Your task to perform on an android device: install app "Messenger Lite" Image 0: 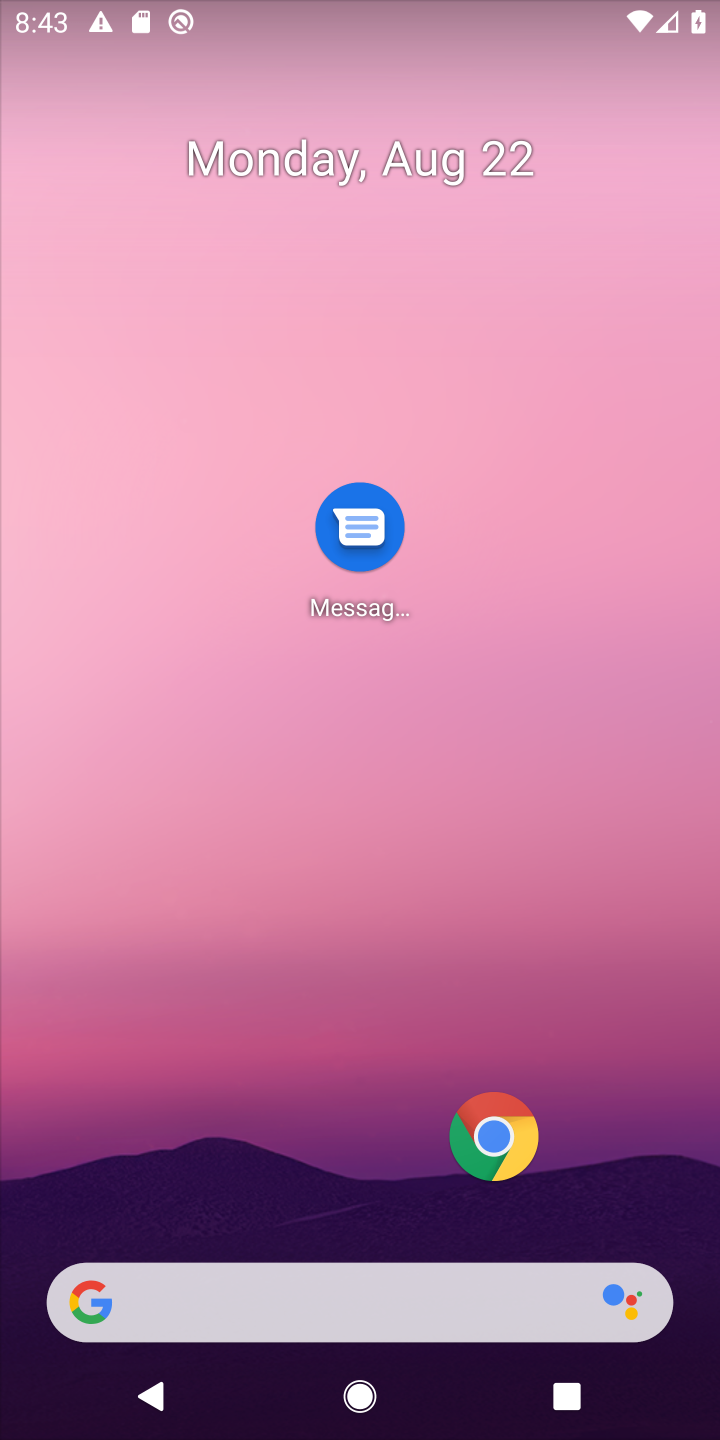
Step 0: drag from (357, 1217) to (66, 1320)
Your task to perform on an android device: install app "Messenger Lite" Image 1: 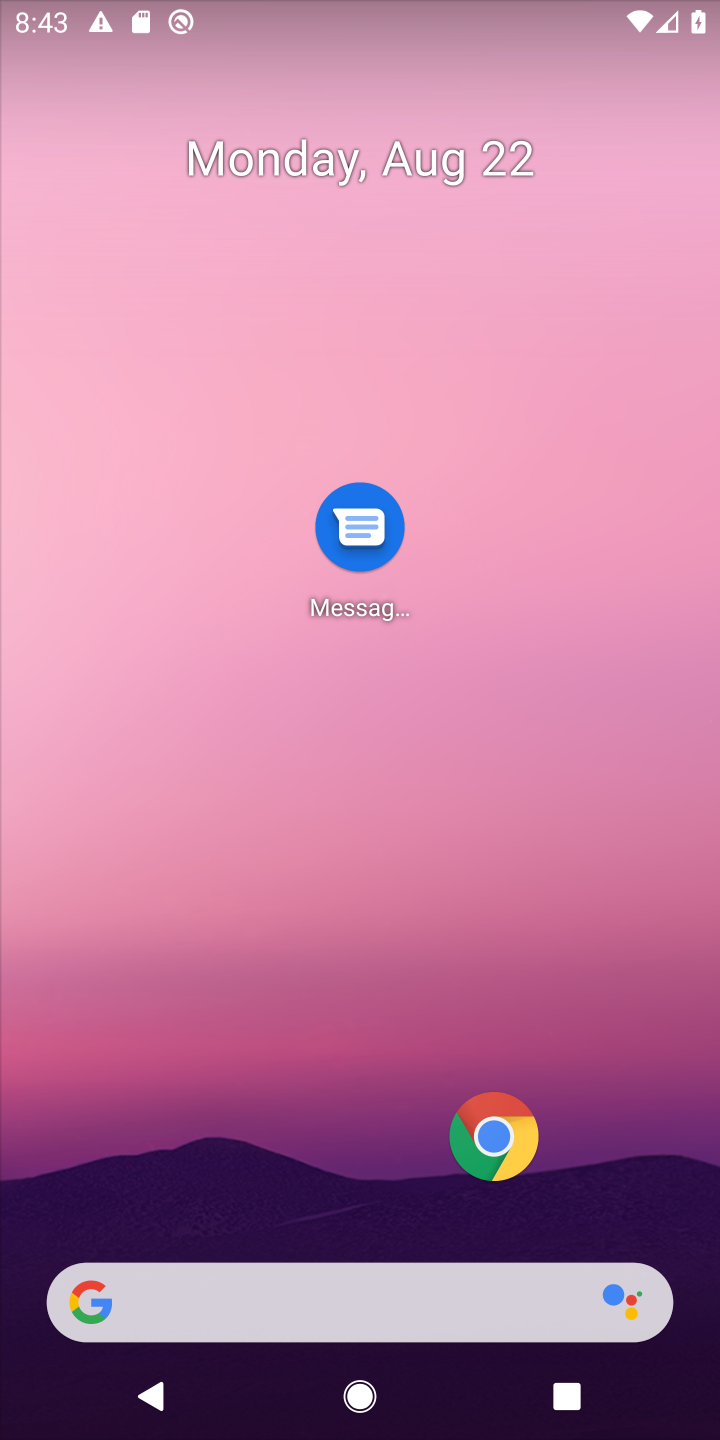
Step 1: drag from (260, 1018) to (250, 238)
Your task to perform on an android device: install app "Messenger Lite" Image 2: 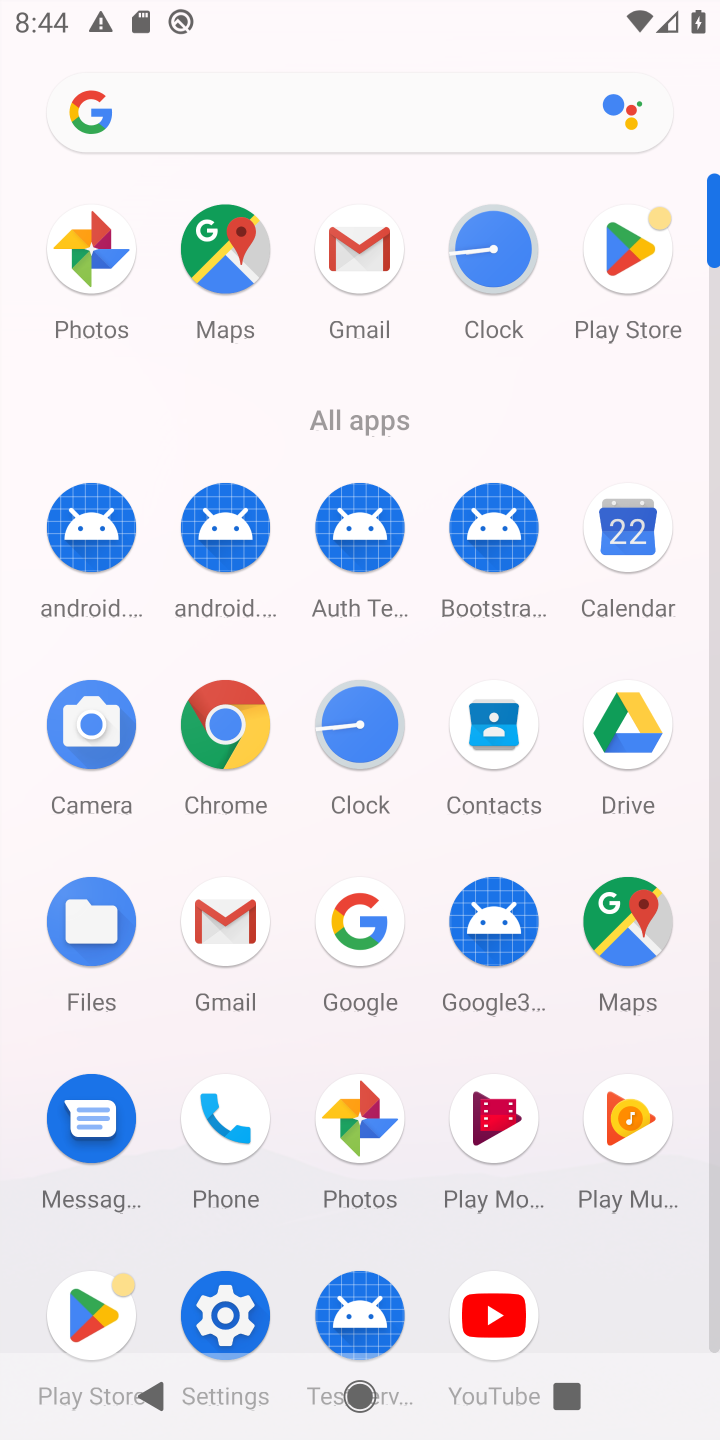
Step 2: click (638, 240)
Your task to perform on an android device: install app "Messenger Lite" Image 3: 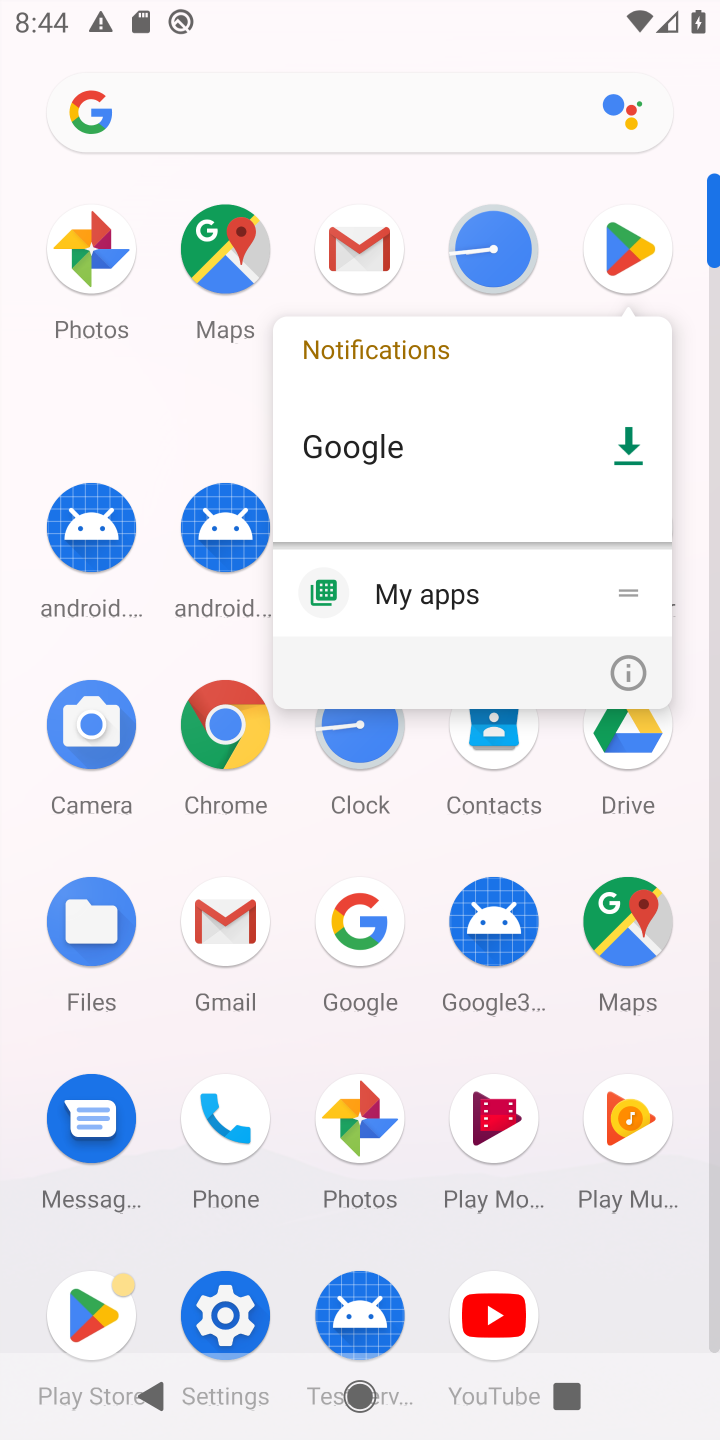
Step 3: click (631, 244)
Your task to perform on an android device: install app "Messenger Lite" Image 4: 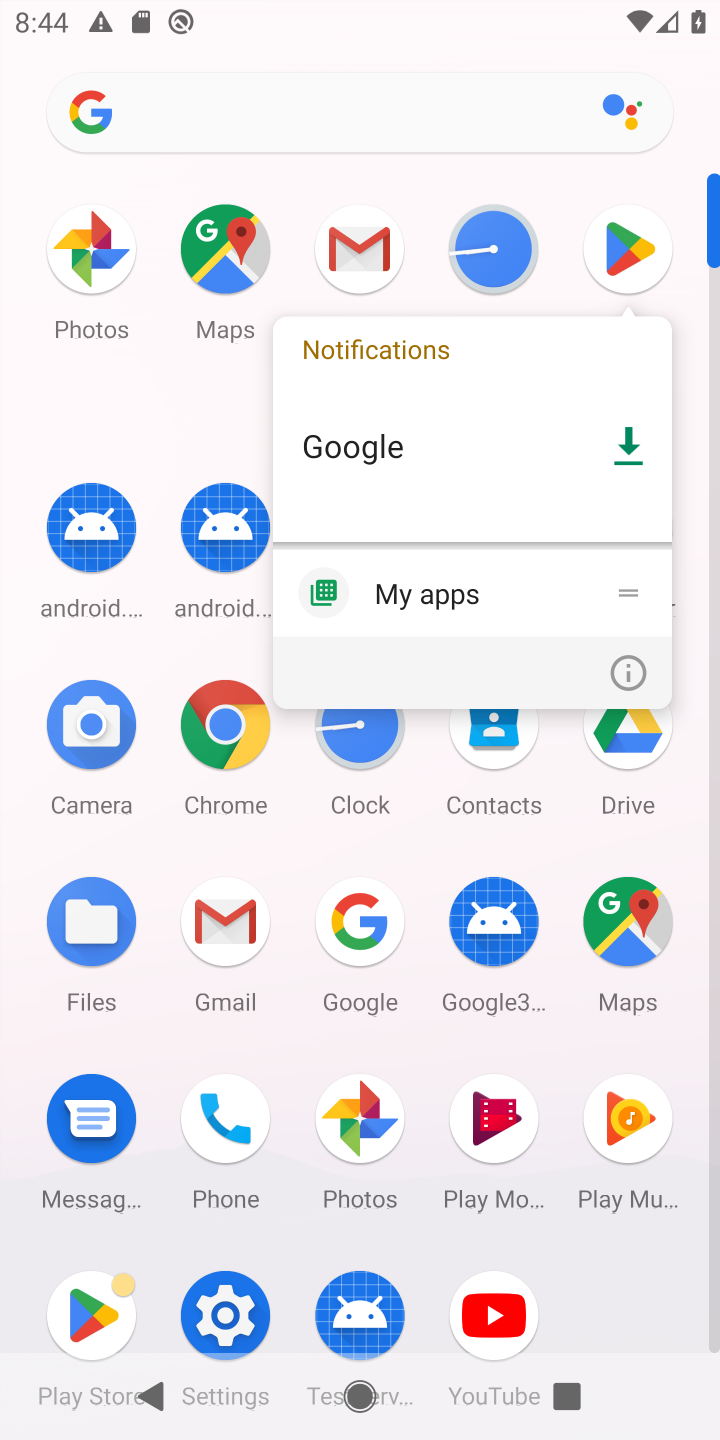
Step 4: click (627, 244)
Your task to perform on an android device: install app "Messenger Lite" Image 5: 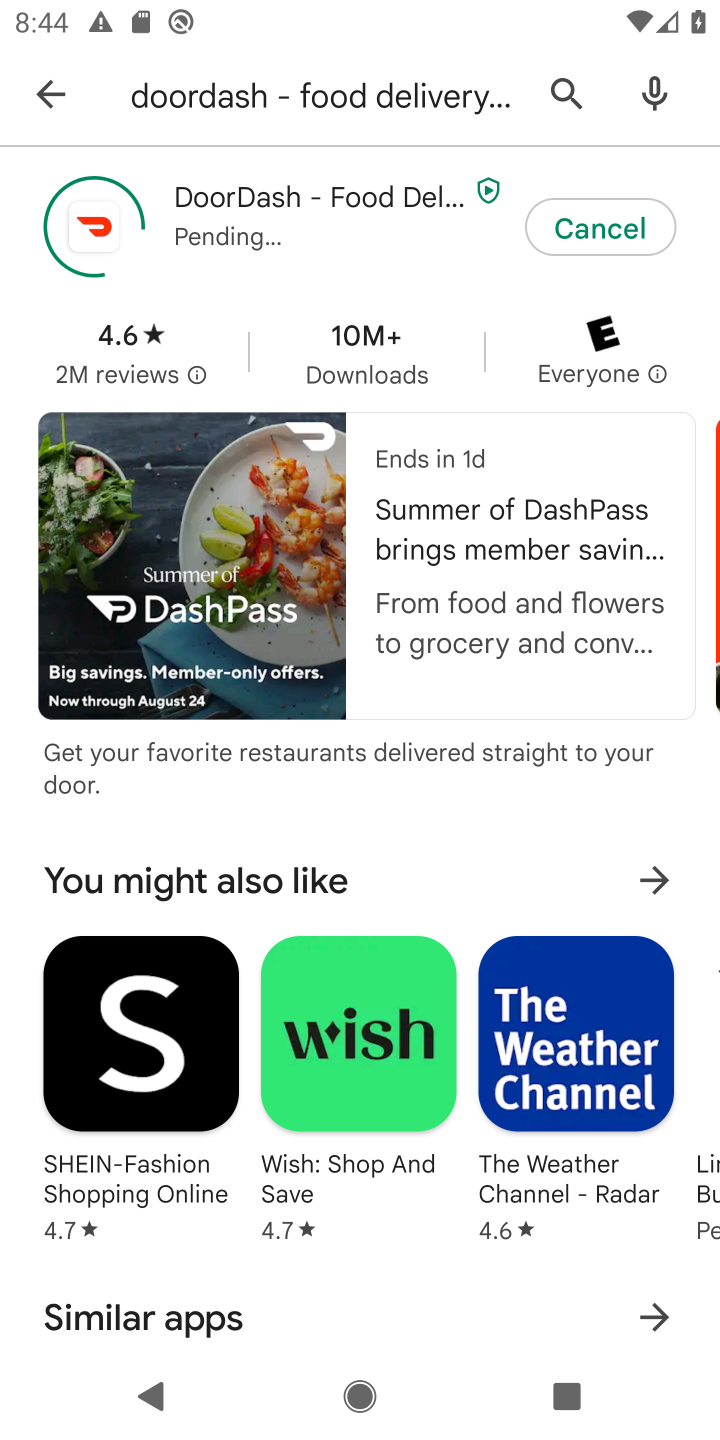
Step 5: click (86, 1293)
Your task to perform on an android device: install app "Messenger Lite" Image 6: 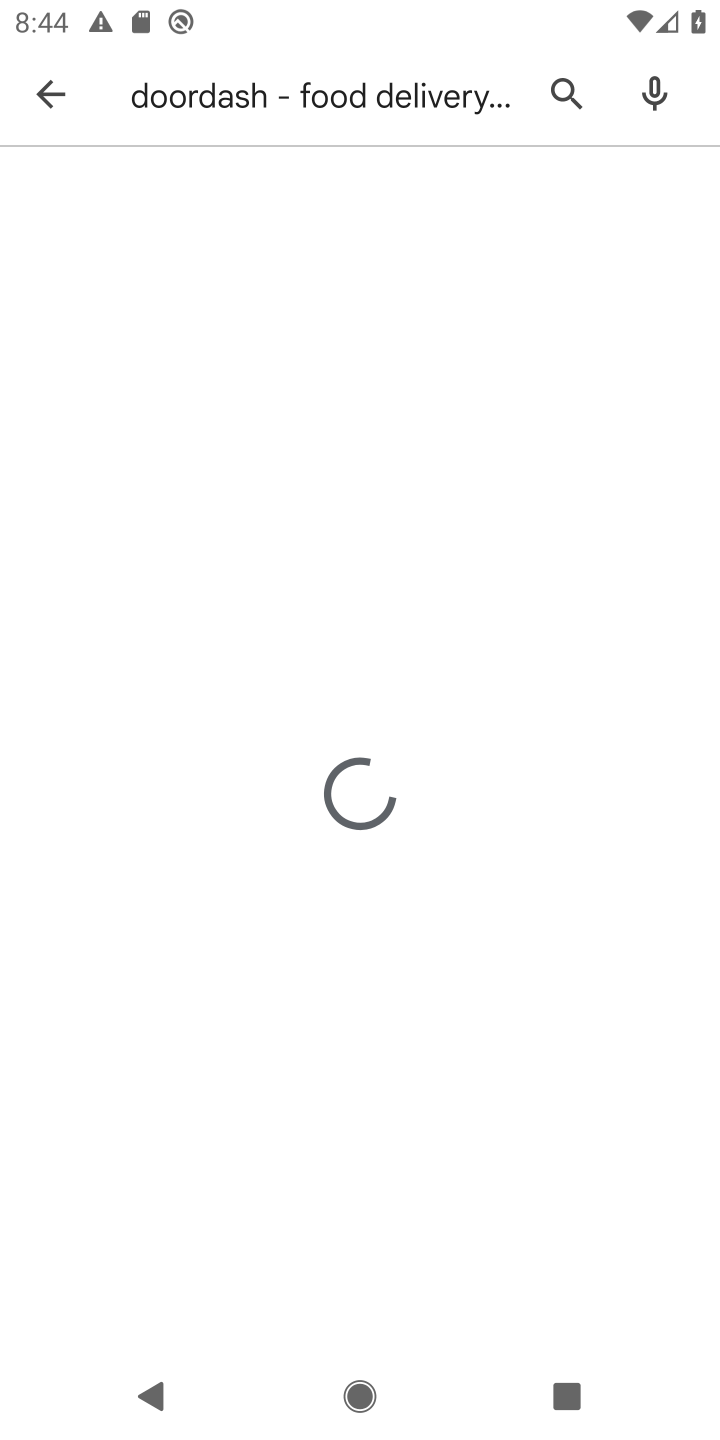
Step 6: click (61, 92)
Your task to perform on an android device: install app "Messenger Lite" Image 7: 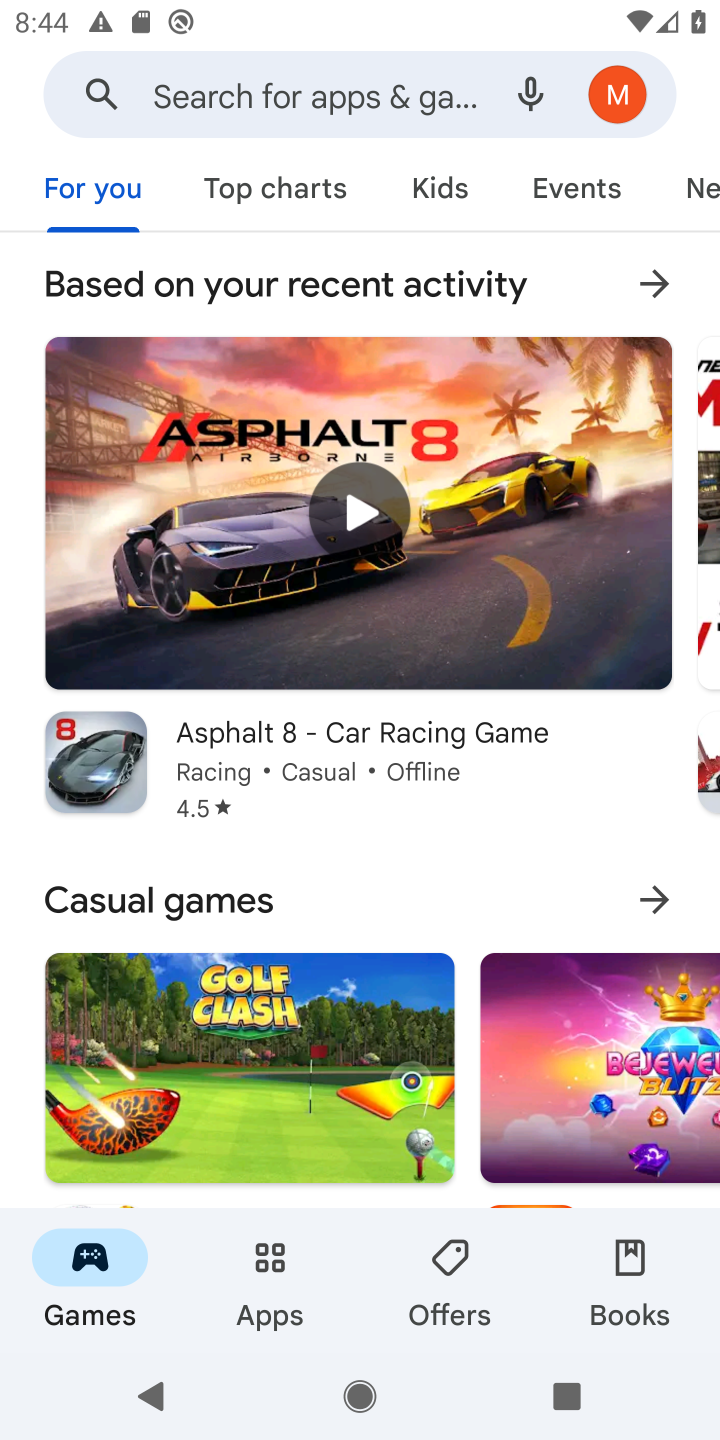
Step 7: click (61, 92)
Your task to perform on an android device: install app "Messenger Lite" Image 8: 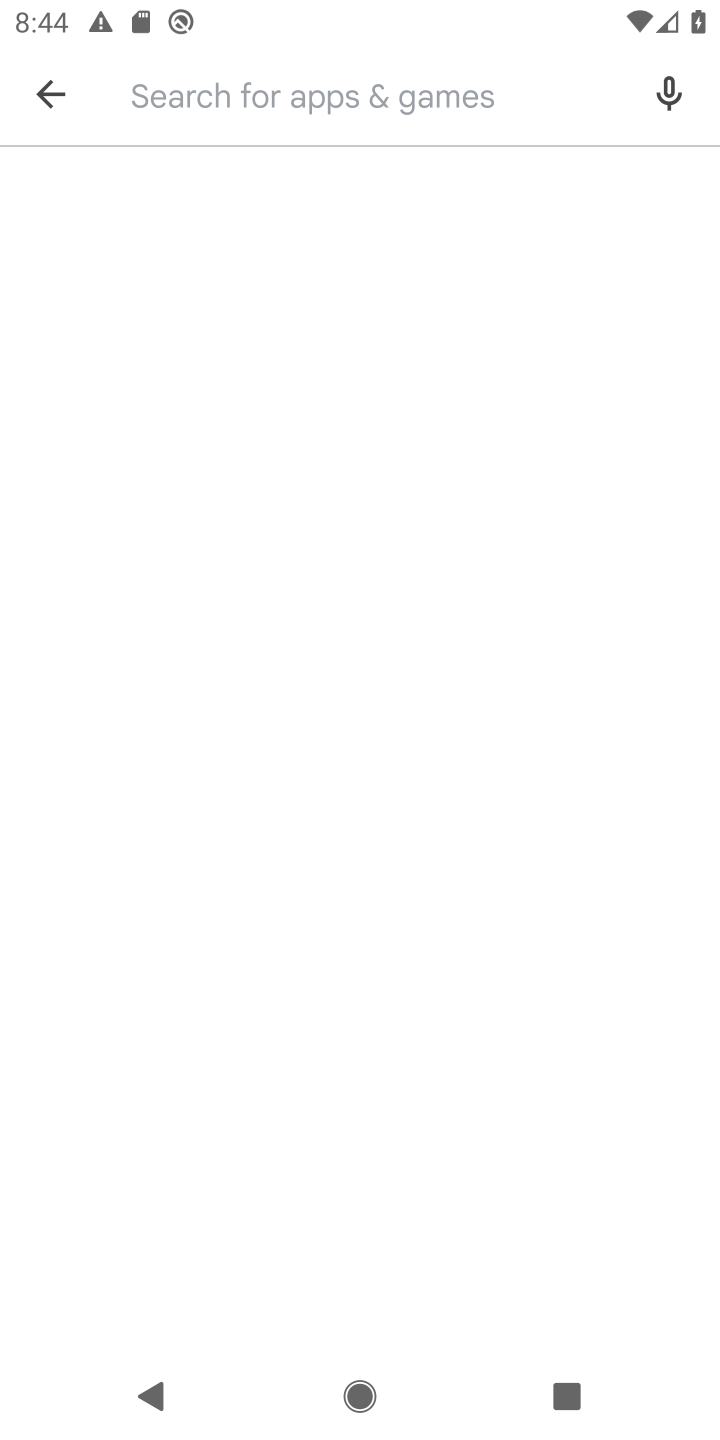
Step 8: click (243, 92)
Your task to perform on an android device: install app "Messenger Lite" Image 9: 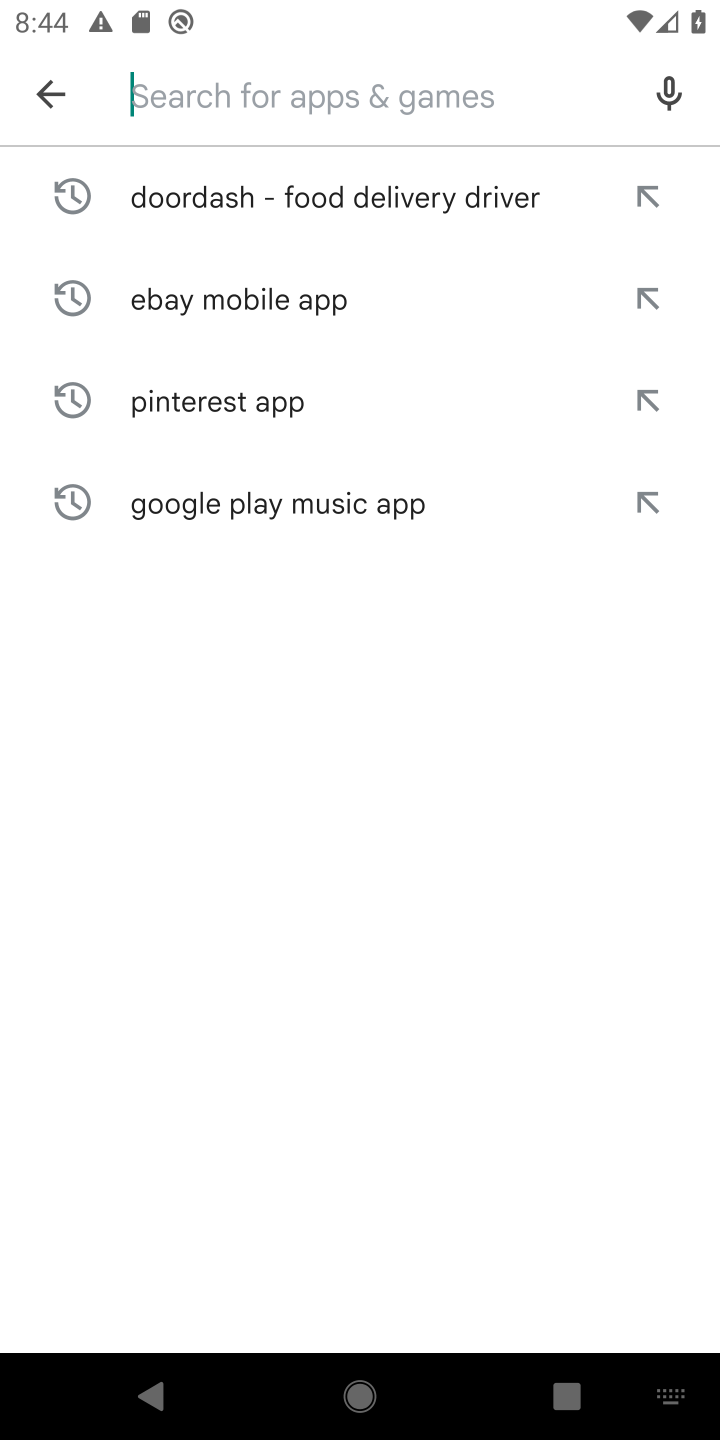
Step 9: click (158, 92)
Your task to perform on an android device: install app "Messenger Lite" Image 10: 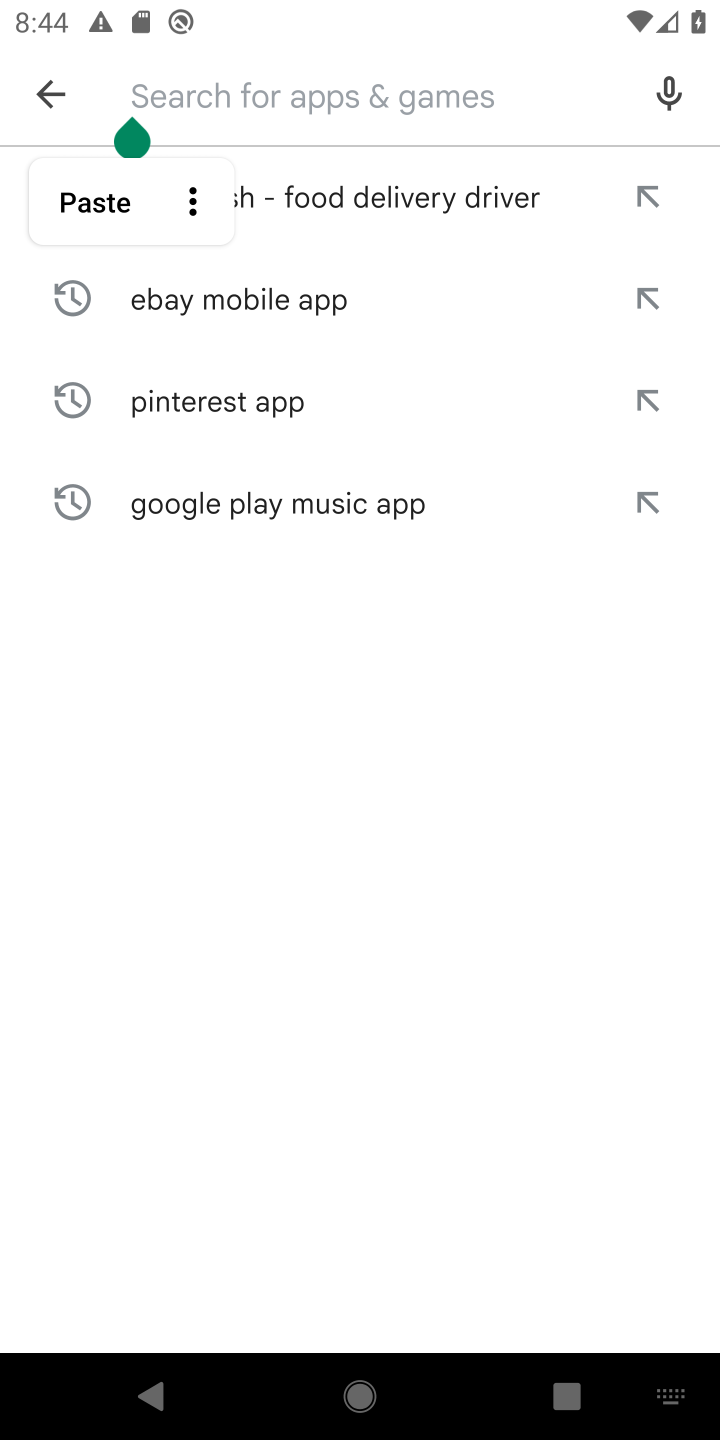
Step 10: type "Messenger Lite "
Your task to perform on an android device: install app "Messenger Lite" Image 11: 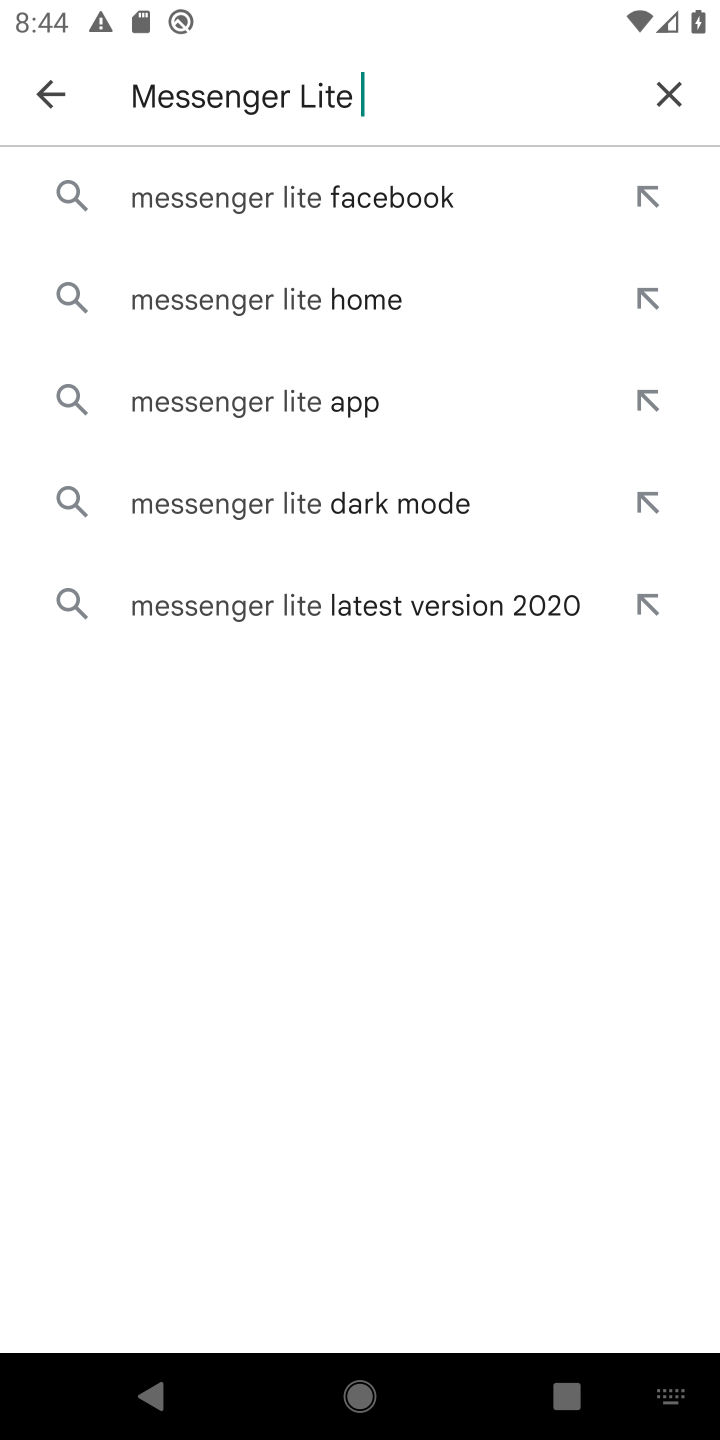
Step 11: click (228, 204)
Your task to perform on an android device: install app "Messenger Lite" Image 12: 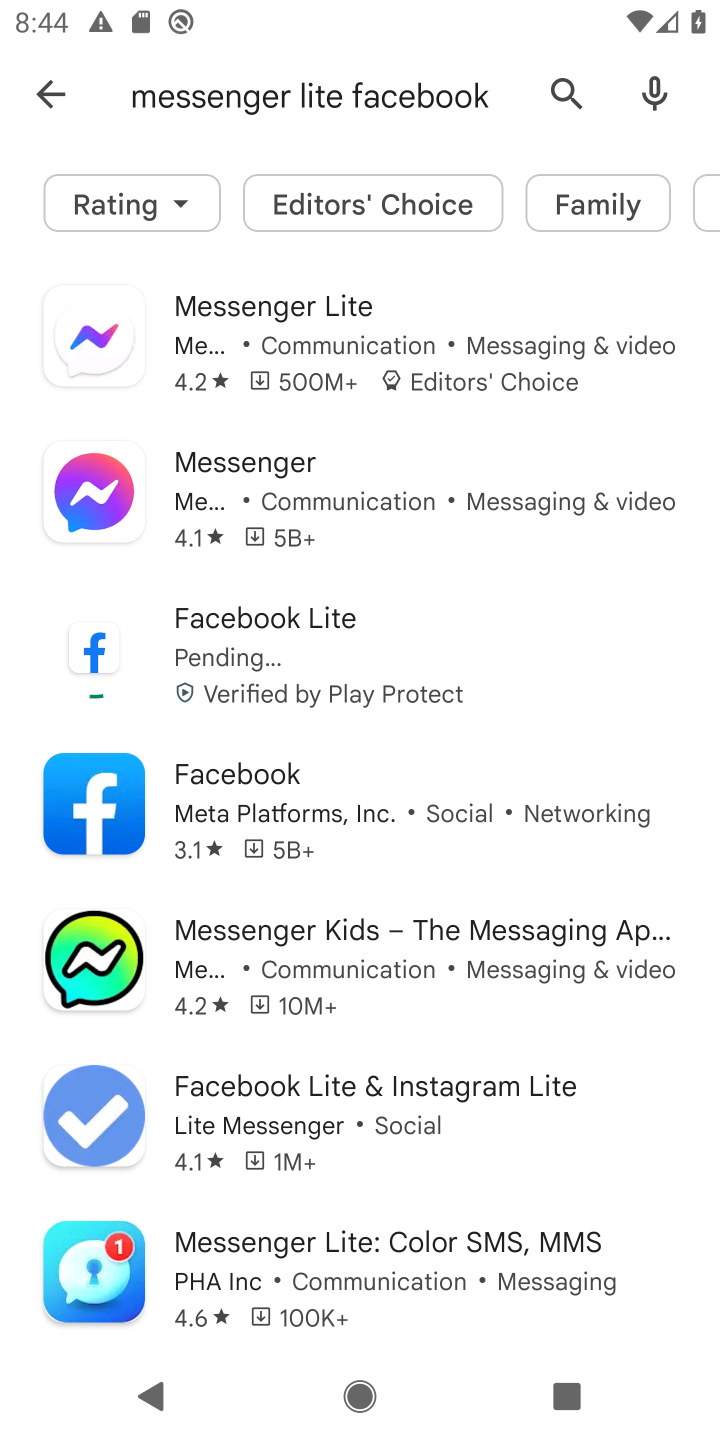
Step 12: click (398, 322)
Your task to perform on an android device: install app "Messenger Lite" Image 13: 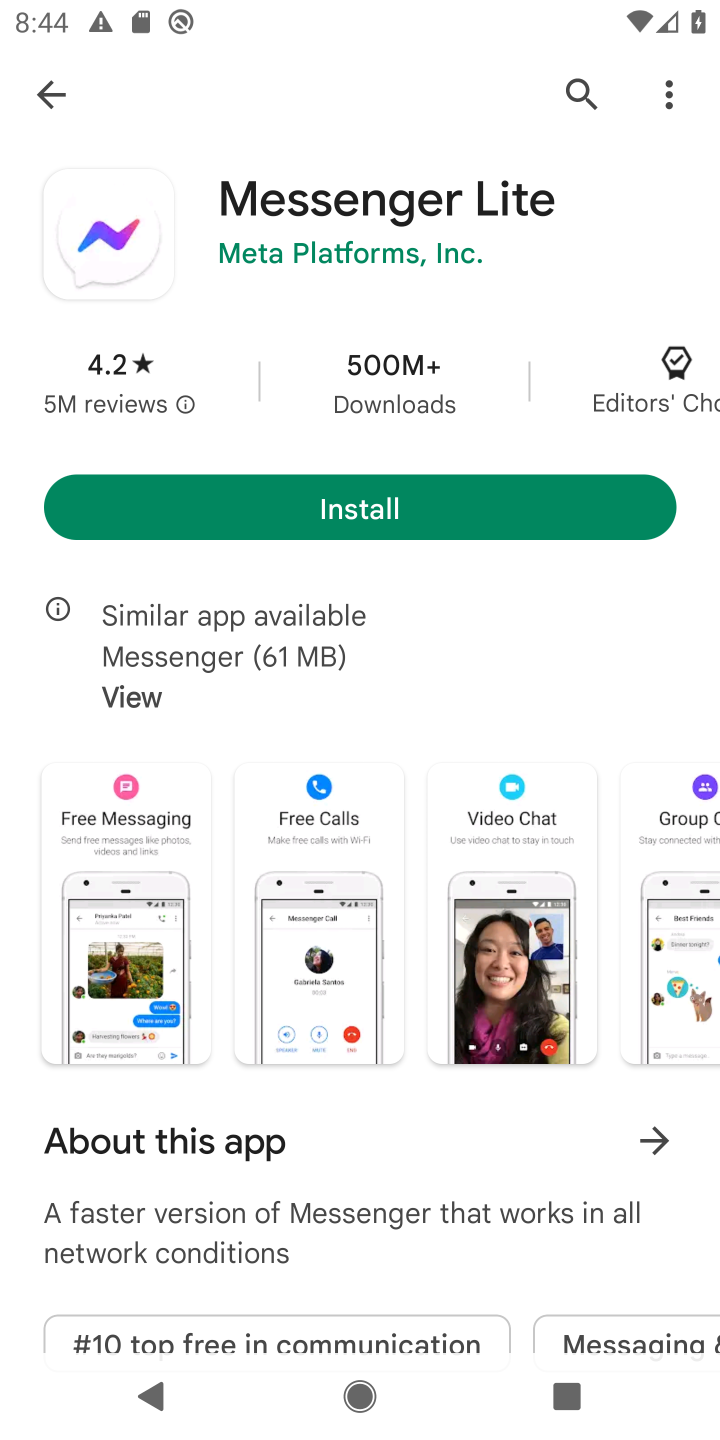
Step 13: click (448, 514)
Your task to perform on an android device: install app "Messenger Lite" Image 14: 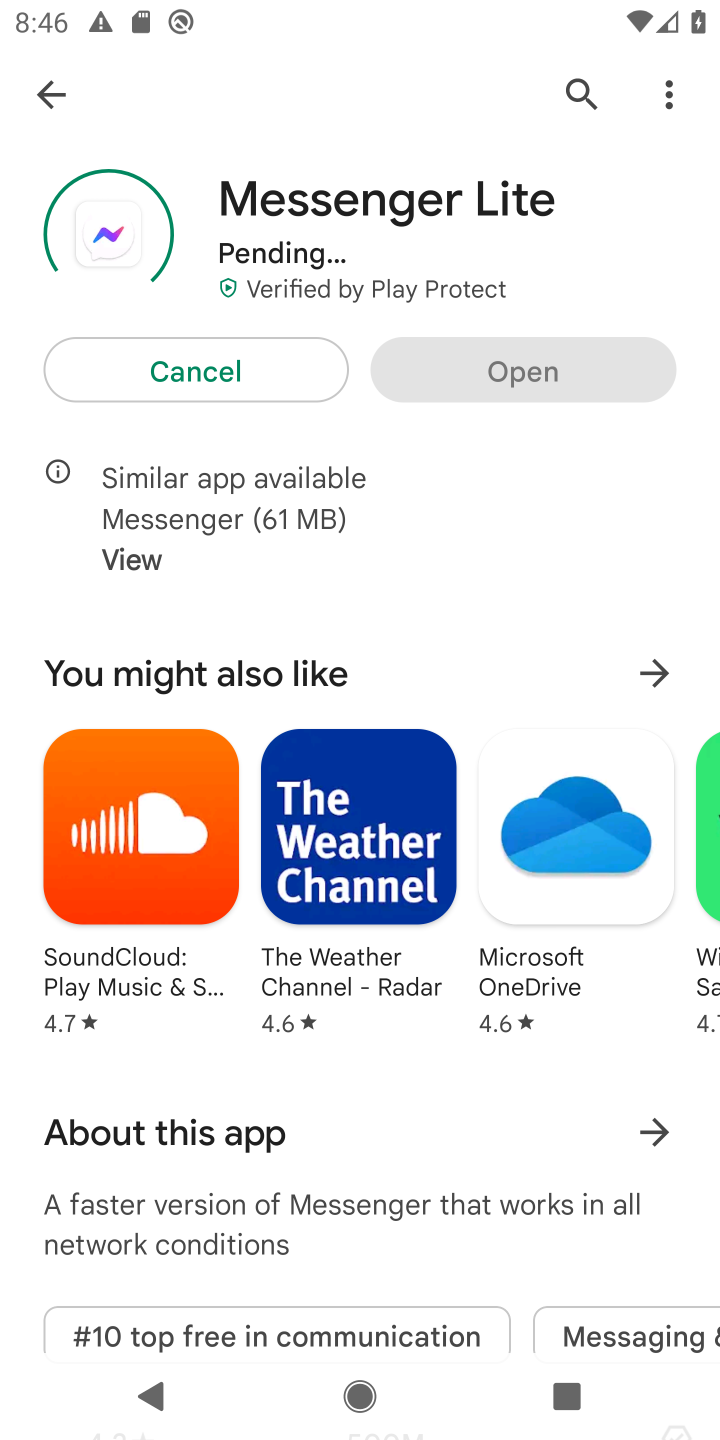
Step 14: task complete